Your task to perform on an android device: What's on my calendar today? Image 0: 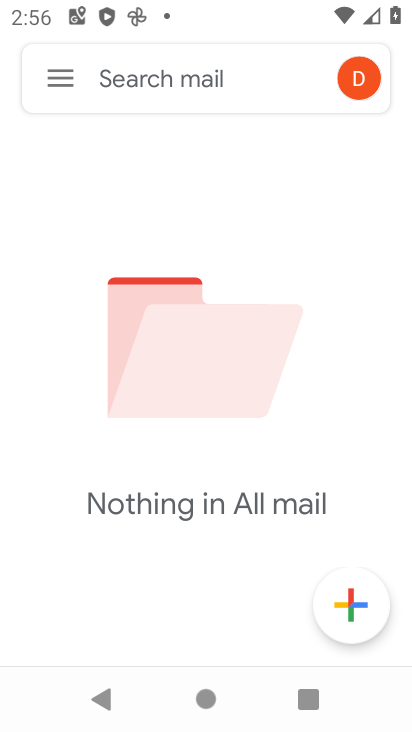
Step 0: press home button
Your task to perform on an android device: What's on my calendar today? Image 1: 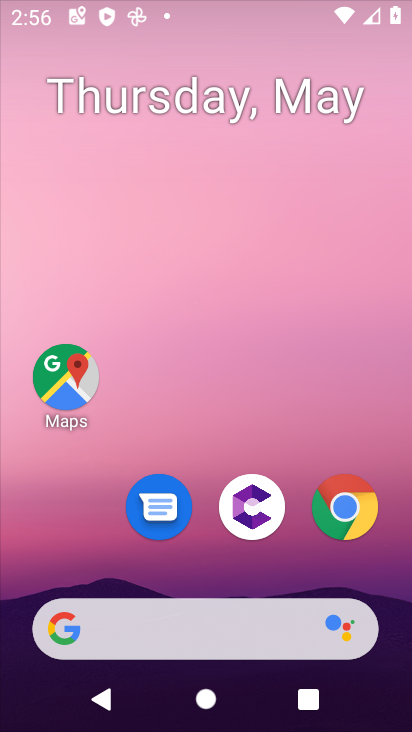
Step 1: drag from (235, 394) to (161, 40)
Your task to perform on an android device: What's on my calendar today? Image 2: 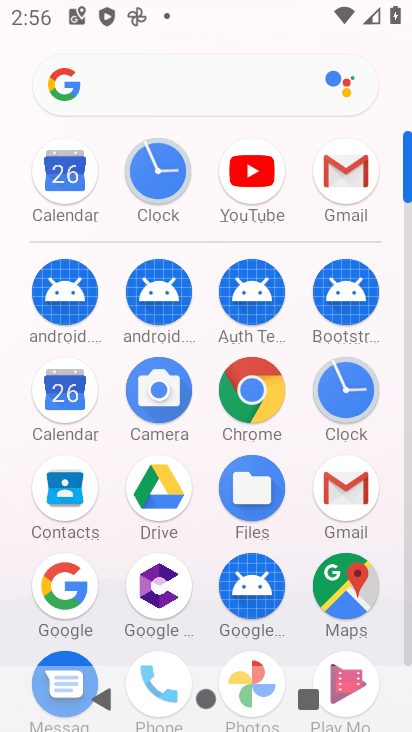
Step 2: click (57, 169)
Your task to perform on an android device: What's on my calendar today? Image 3: 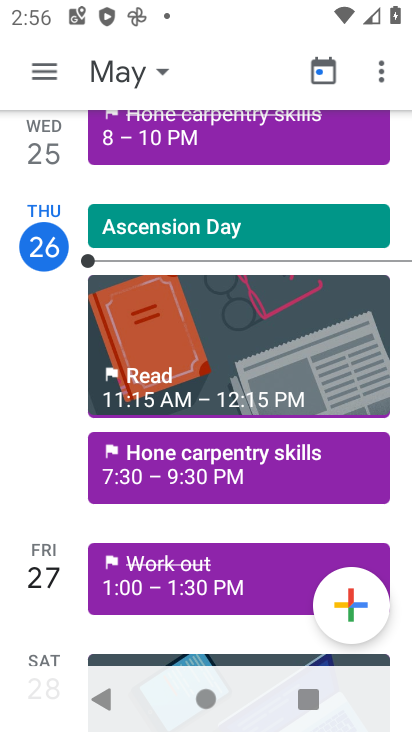
Step 3: drag from (63, 189) to (47, 224)
Your task to perform on an android device: What's on my calendar today? Image 4: 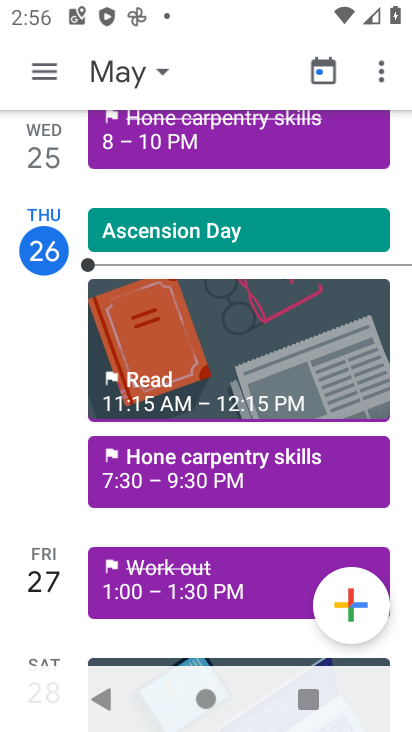
Step 4: click (40, 73)
Your task to perform on an android device: What's on my calendar today? Image 5: 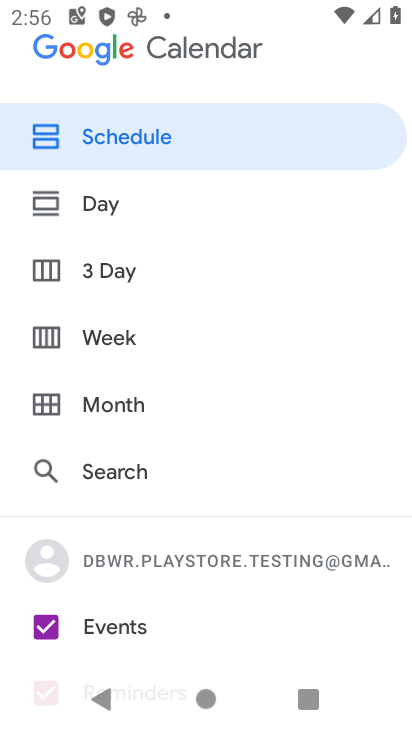
Step 5: click (183, 137)
Your task to perform on an android device: What's on my calendar today? Image 6: 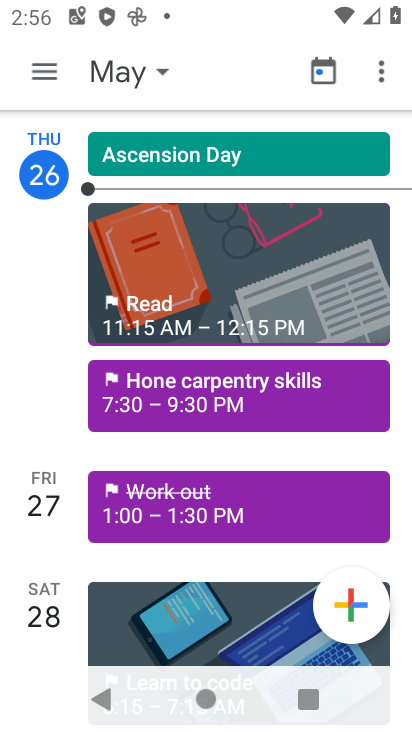
Step 6: task complete